Your task to perform on an android device: Clear the shopping cart on amazon. Add "asus rog" to the cart on amazon, then select checkout. Image 0: 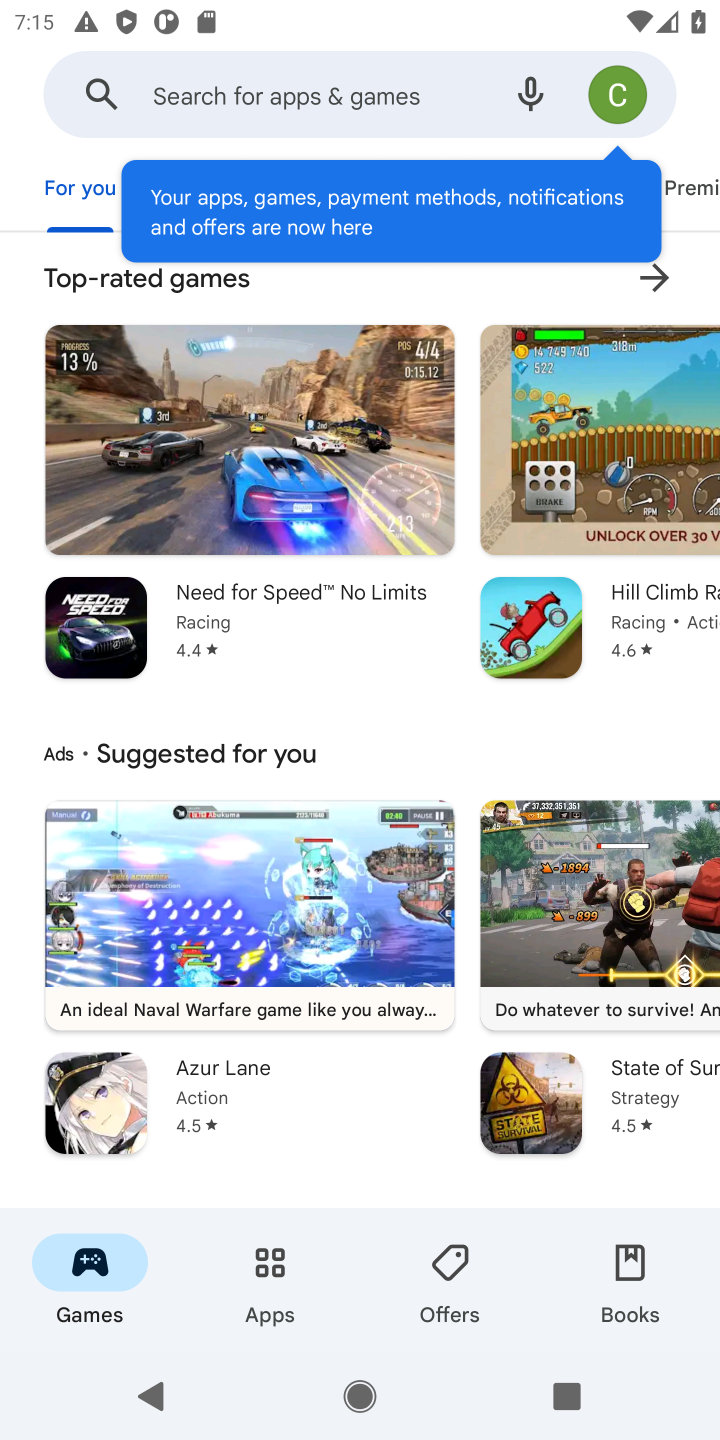
Step 0: task complete